Your task to perform on an android device: Open Youtube and go to "Your channel" Image 0: 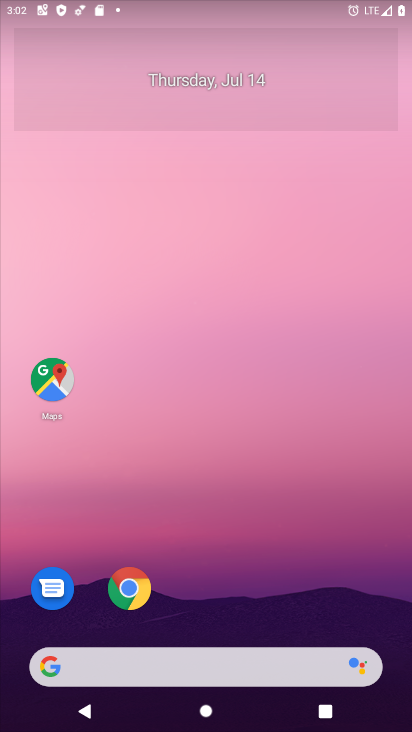
Step 0: click (242, 207)
Your task to perform on an android device: Open Youtube and go to "Your channel" Image 1: 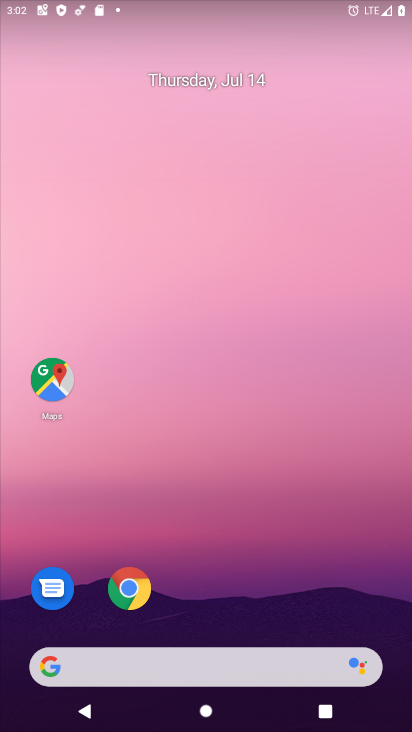
Step 1: drag from (196, 595) to (204, 264)
Your task to perform on an android device: Open Youtube and go to "Your channel" Image 2: 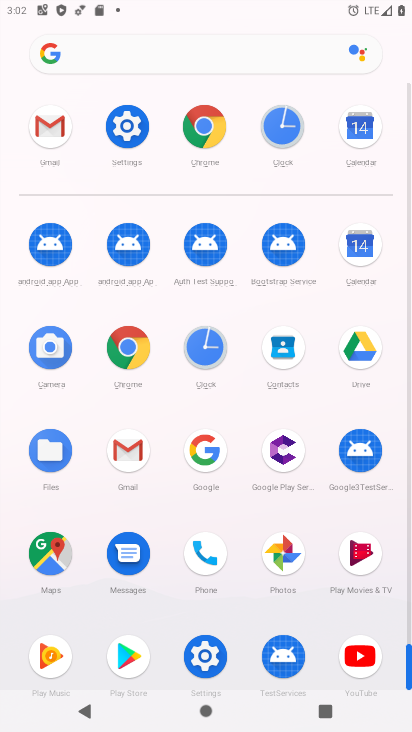
Step 2: click (350, 640)
Your task to perform on an android device: Open Youtube and go to "Your channel" Image 3: 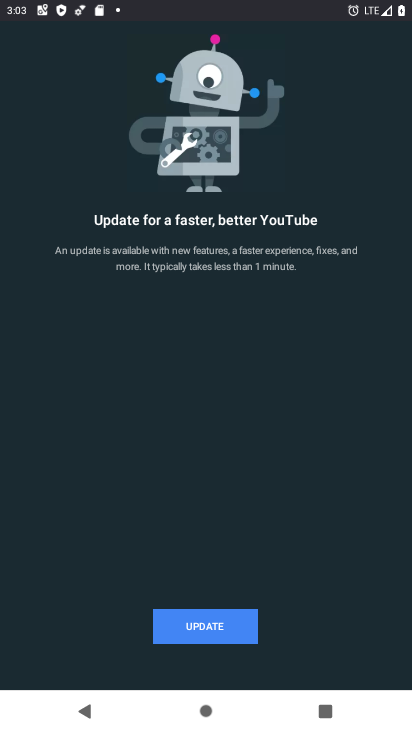
Step 3: task complete